Your task to perform on an android device: Search for energizer triple a on ebay.com, select the first entry, and add it to the cart. Image 0: 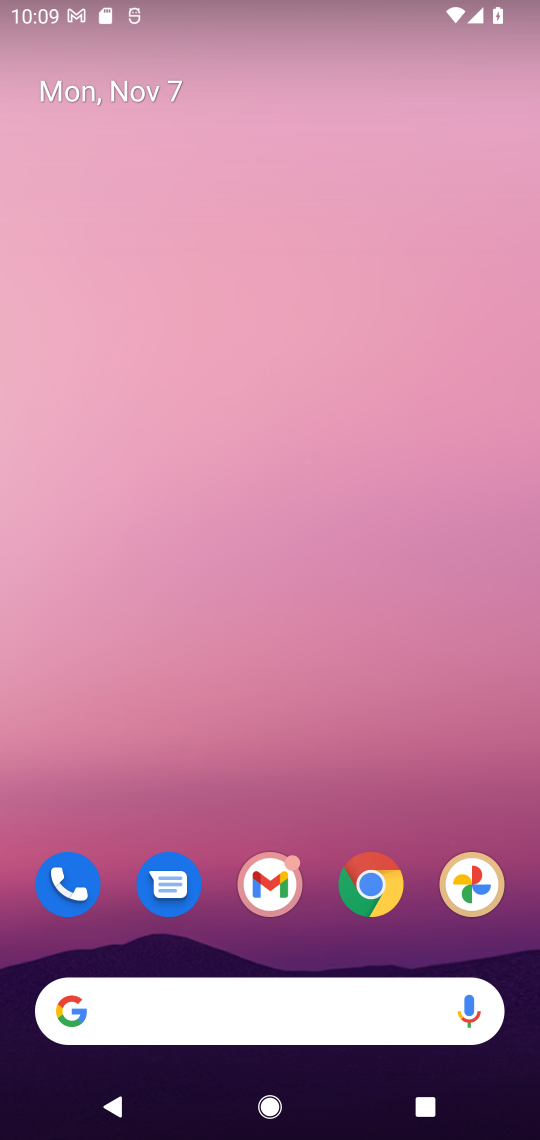
Step 0: click (365, 878)
Your task to perform on an android device: Search for energizer triple a on ebay.com, select the first entry, and add it to the cart. Image 1: 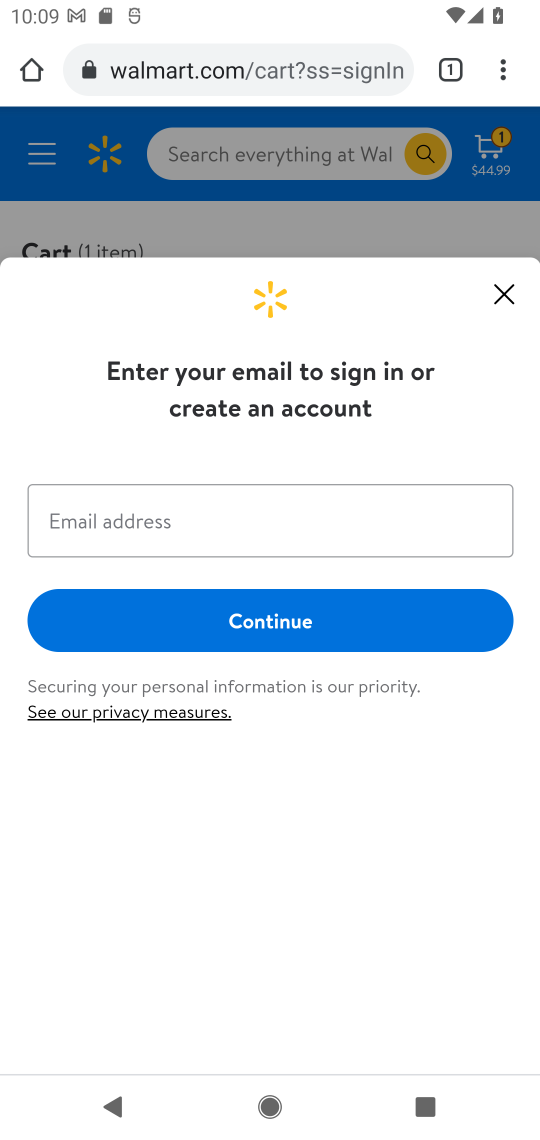
Step 1: click (269, 52)
Your task to perform on an android device: Search for energizer triple a on ebay.com, select the first entry, and add it to the cart. Image 2: 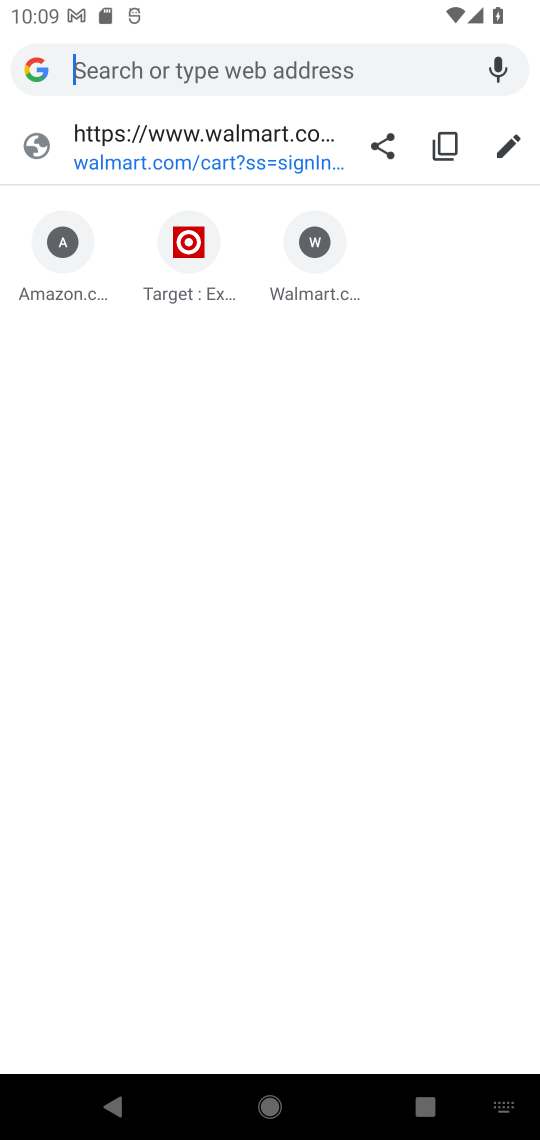
Step 2: type "ebay.com"
Your task to perform on an android device: Search for energizer triple a on ebay.com, select the first entry, and add it to the cart. Image 3: 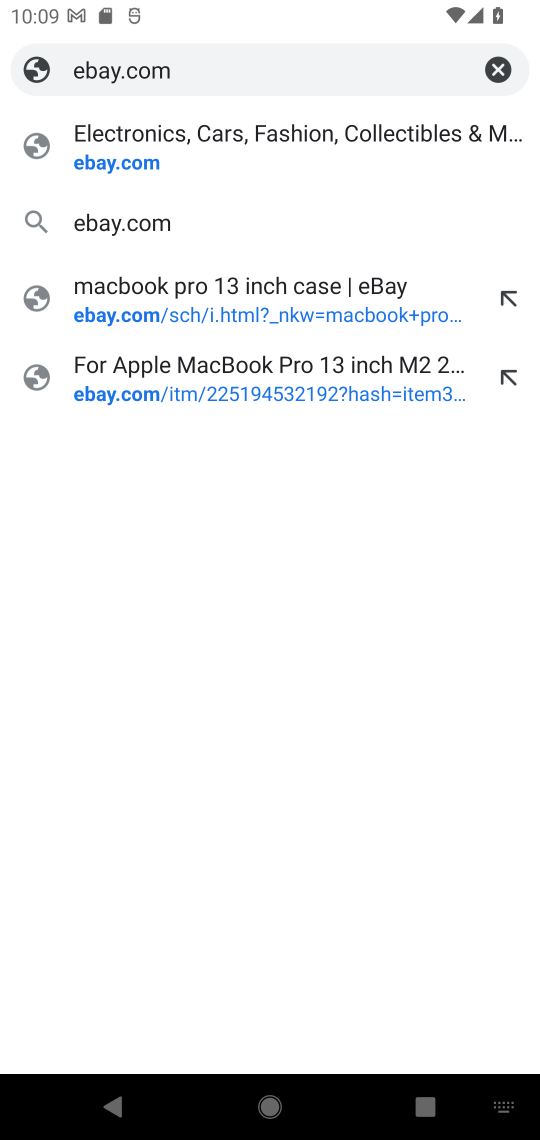
Step 3: click (147, 216)
Your task to perform on an android device: Search for energizer triple a on ebay.com, select the first entry, and add it to the cart. Image 4: 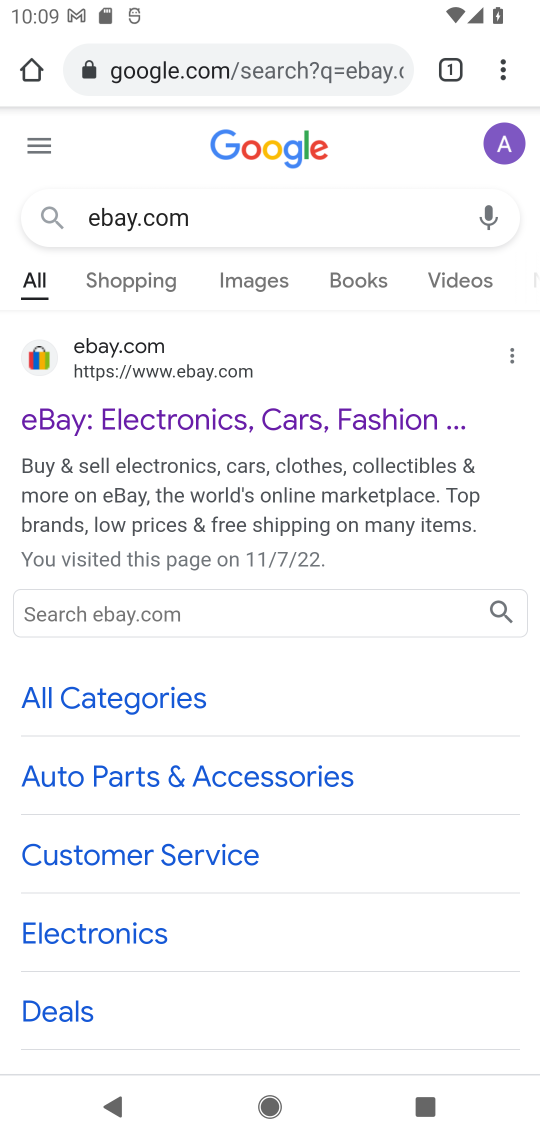
Step 4: click (184, 373)
Your task to perform on an android device: Search for energizer triple a on ebay.com, select the first entry, and add it to the cart. Image 5: 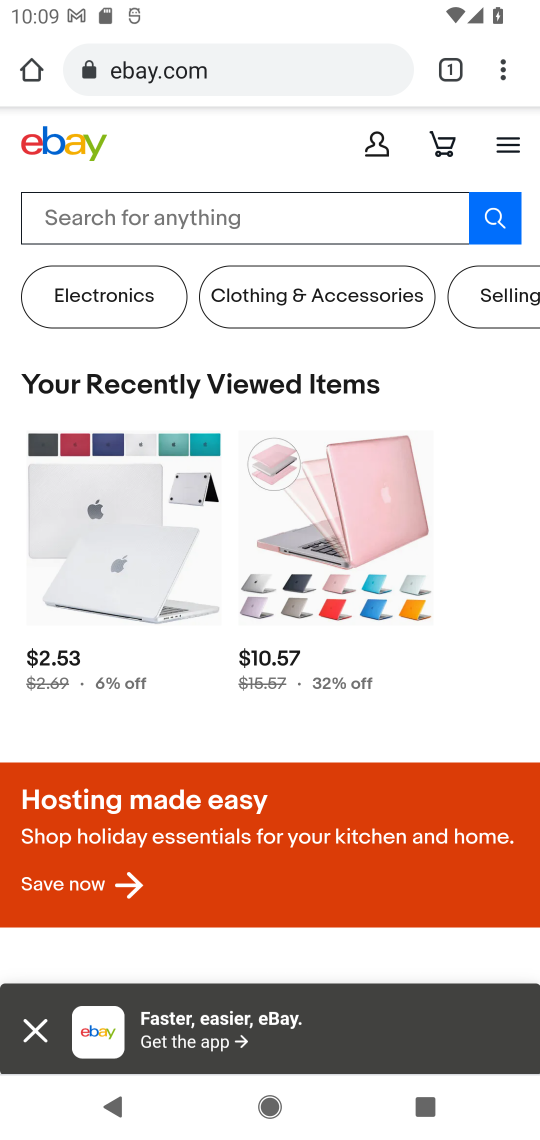
Step 5: click (275, 208)
Your task to perform on an android device: Search for energizer triple a on ebay.com, select the first entry, and add it to the cart. Image 6: 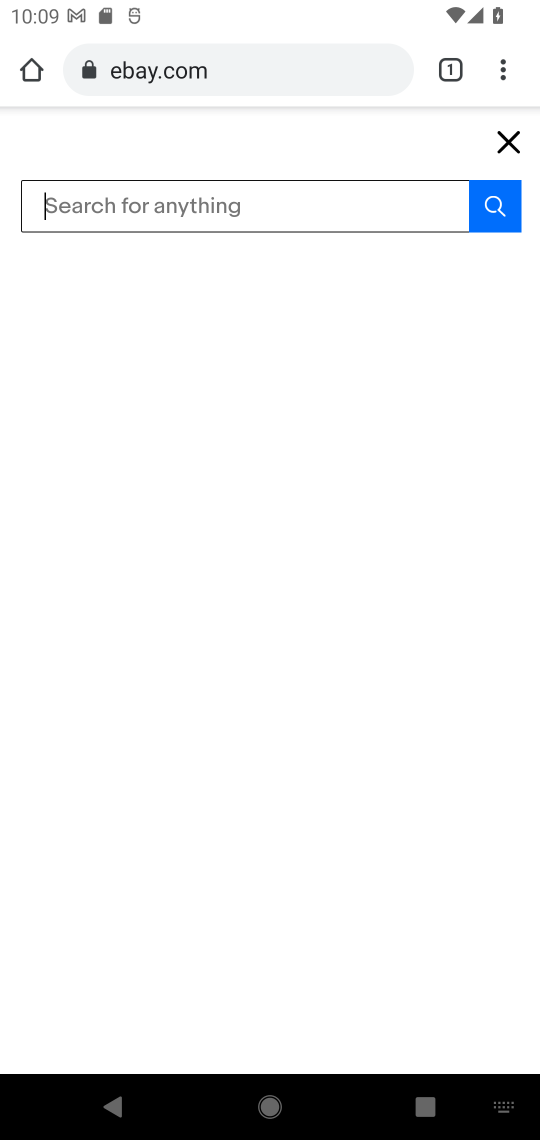
Step 6: type "energizer triple a"
Your task to perform on an android device: Search for energizer triple a on ebay.com, select the first entry, and add it to the cart. Image 7: 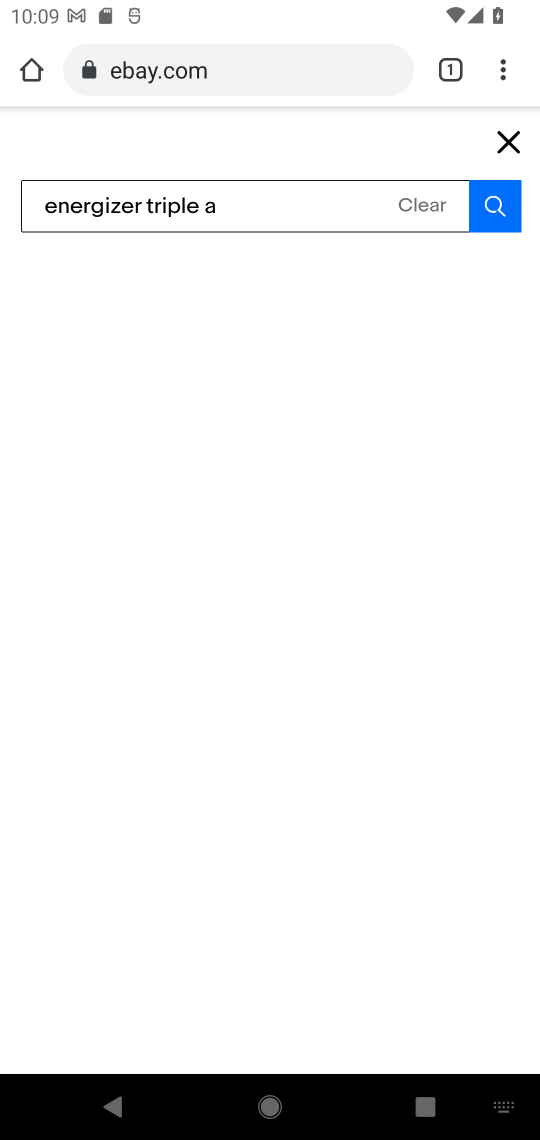
Step 7: click (351, 503)
Your task to perform on an android device: Search for energizer triple a on ebay.com, select the first entry, and add it to the cart. Image 8: 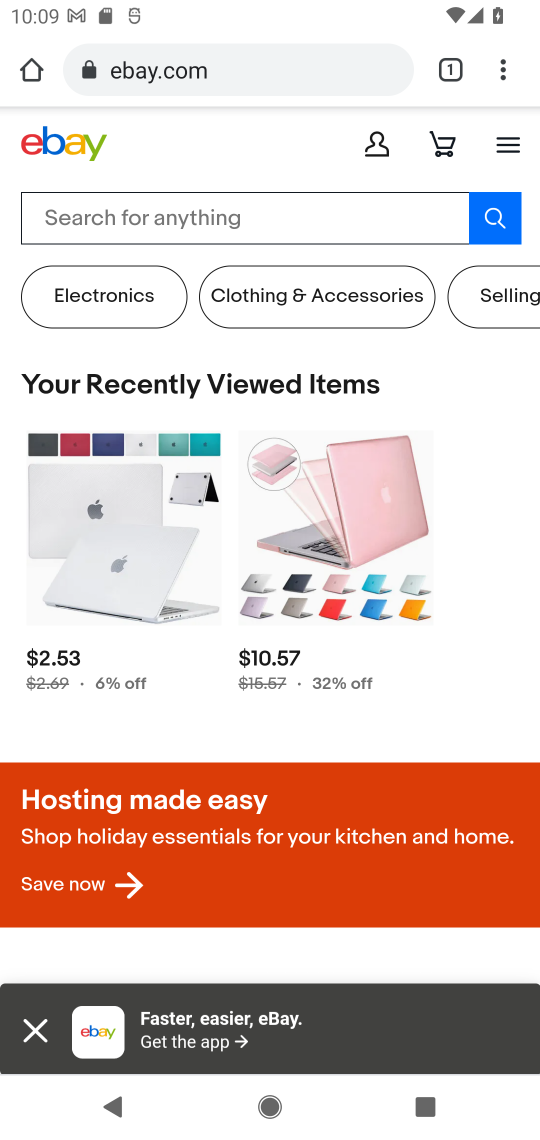
Step 8: drag from (392, 687) to (345, 314)
Your task to perform on an android device: Search for energizer triple a on ebay.com, select the first entry, and add it to the cart. Image 9: 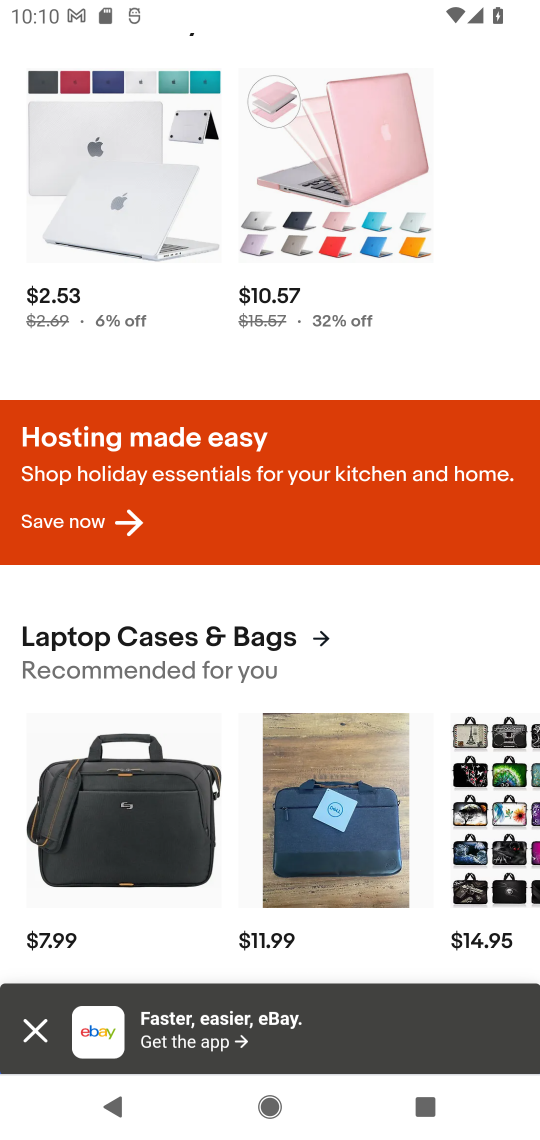
Step 9: drag from (372, 190) to (467, 676)
Your task to perform on an android device: Search for energizer triple a on ebay.com, select the first entry, and add it to the cart. Image 10: 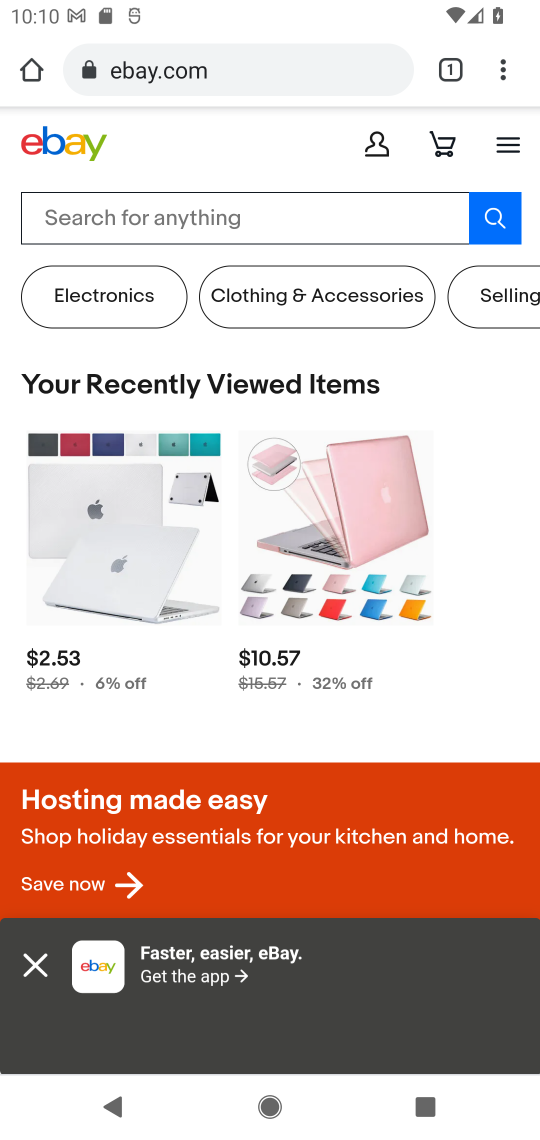
Step 10: click (248, 225)
Your task to perform on an android device: Search for energizer triple a on ebay.com, select the first entry, and add it to the cart. Image 11: 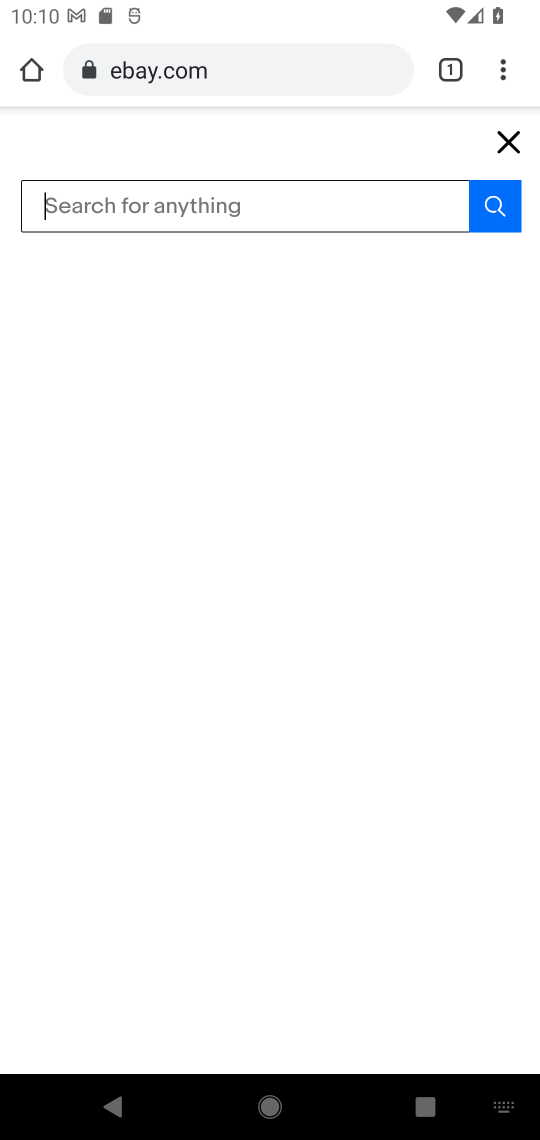
Step 11: type "energizer triple a"
Your task to perform on an android device: Search for energizer triple a on ebay.com, select the first entry, and add it to the cart. Image 12: 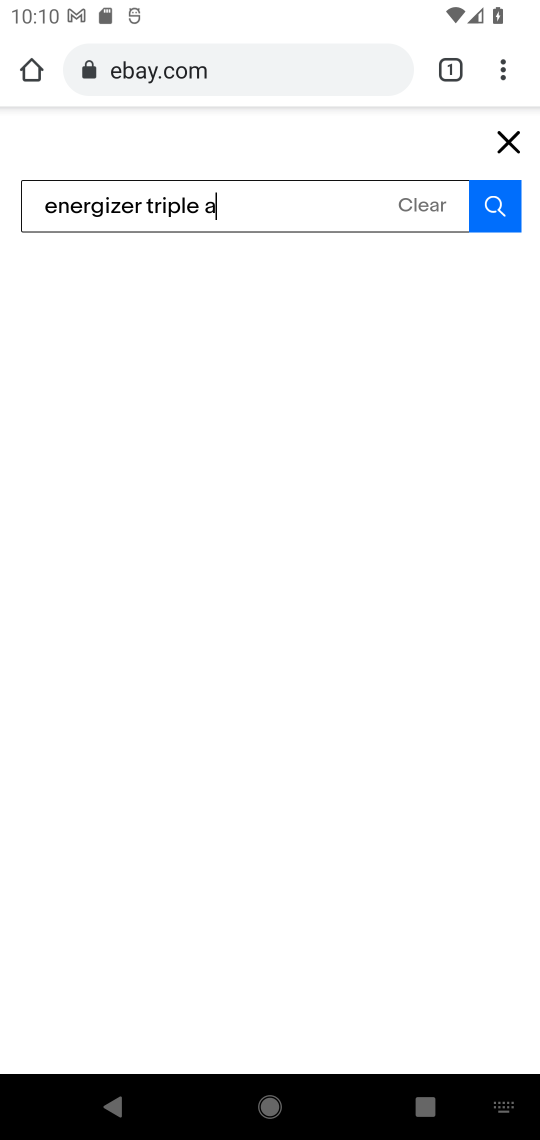
Step 12: click (463, 306)
Your task to perform on an android device: Search for energizer triple a on ebay.com, select the first entry, and add it to the cart. Image 13: 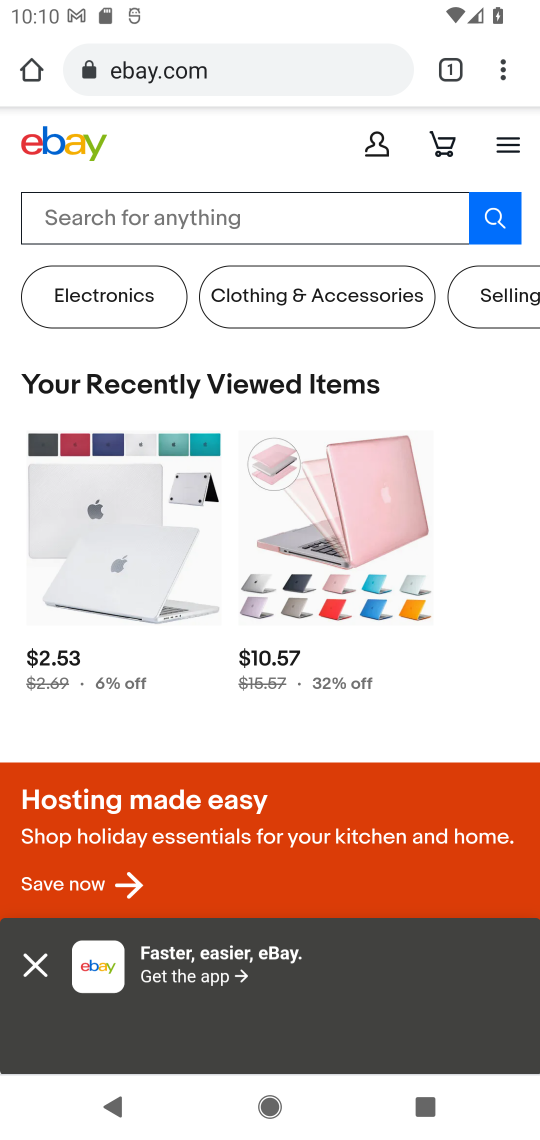
Step 13: task complete